Your task to perform on an android device: turn on javascript in the chrome app Image 0: 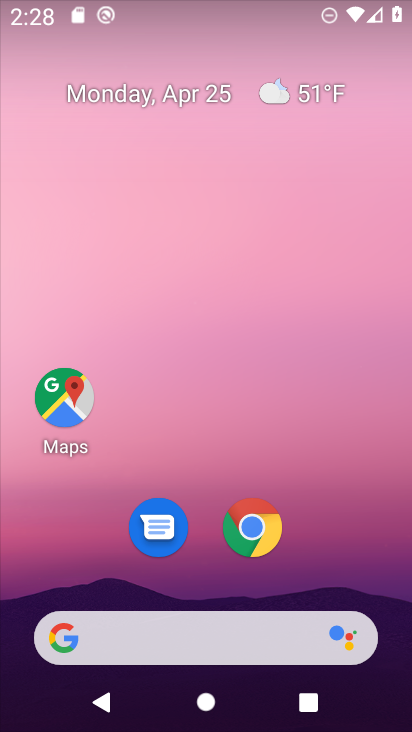
Step 0: drag from (353, 455) to (227, 0)
Your task to perform on an android device: turn on javascript in the chrome app Image 1: 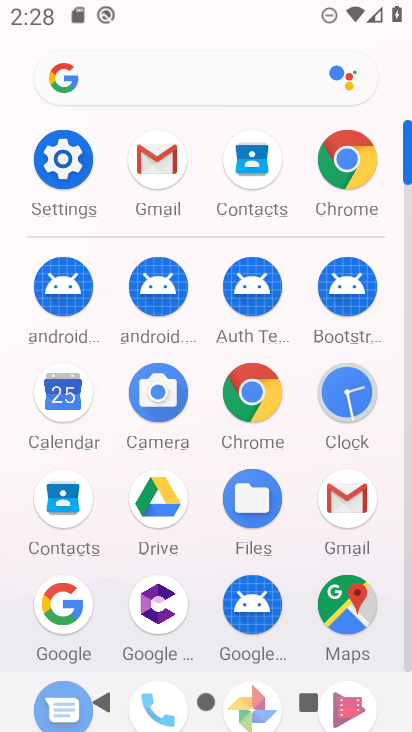
Step 1: drag from (12, 550) to (10, 271)
Your task to perform on an android device: turn on javascript in the chrome app Image 2: 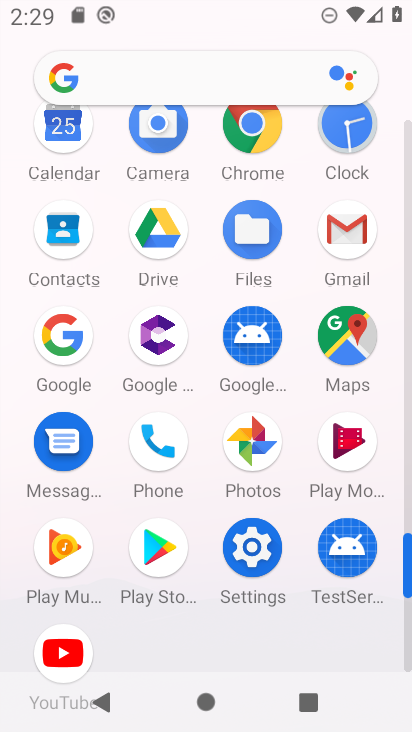
Step 2: drag from (9, 478) to (11, 244)
Your task to perform on an android device: turn on javascript in the chrome app Image 3: 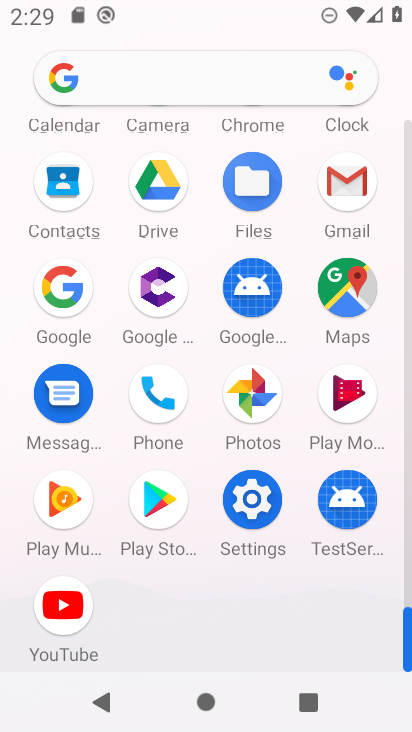
Step 3: drag from (21, 297) to (10, 435)
Your task to perform on an android device: turn on javascript in the chrome app Image 4: 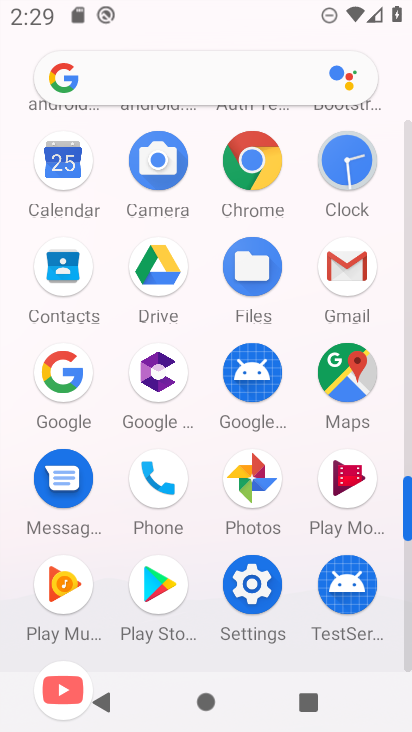
Step 4: drag from (16, 248) to (20, 495)
Your task to perform on an android device: turn on javascript in the chrome app Image 5: 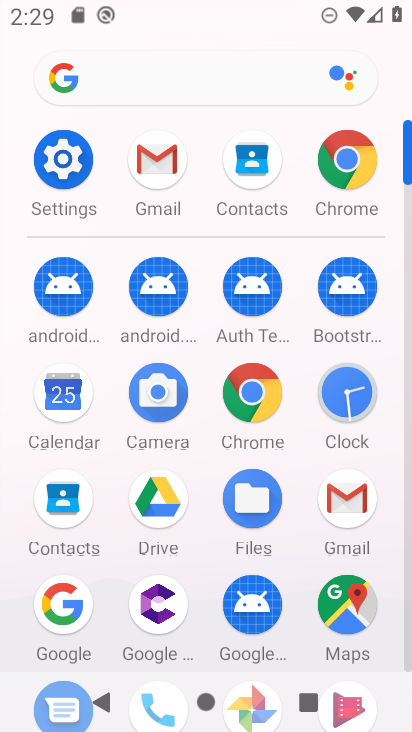
Step 5: click (250, 392)
Your task to perform on an android device: turn on javascript in the chrome app Image 6: 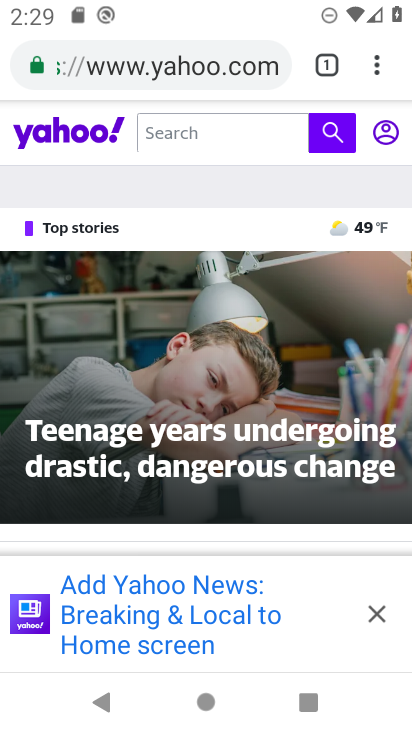
Step 6: drag from (373, 71) to (182, 562)
Your task to perform on an android device: turn on javascript in the chrome app Image 7: 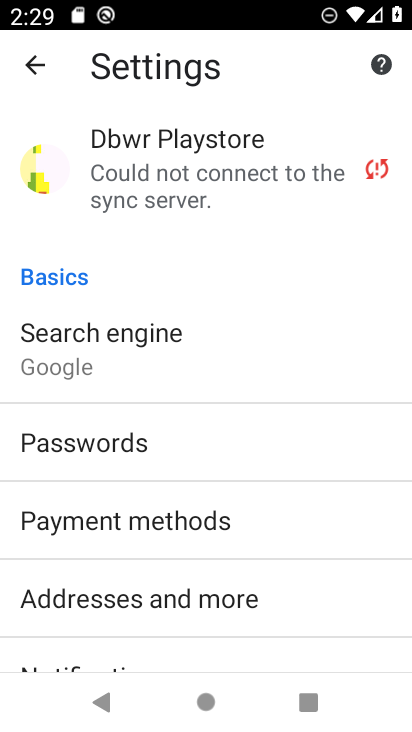
Step 7: drag from (327, 522) to (291, 114)
Your task to perform on an android device: turn on javascript in the chrome app Image 8: 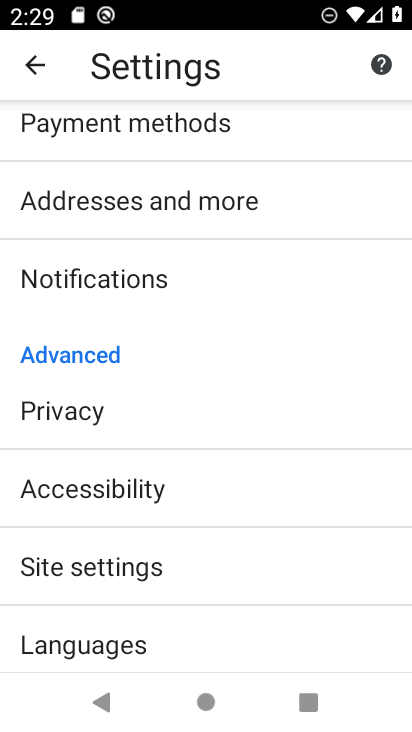
Step 8: drag from (277, 567) to (264, 215)
Your task to perform on an android device: turn on javascript in the chrome app Image 9: 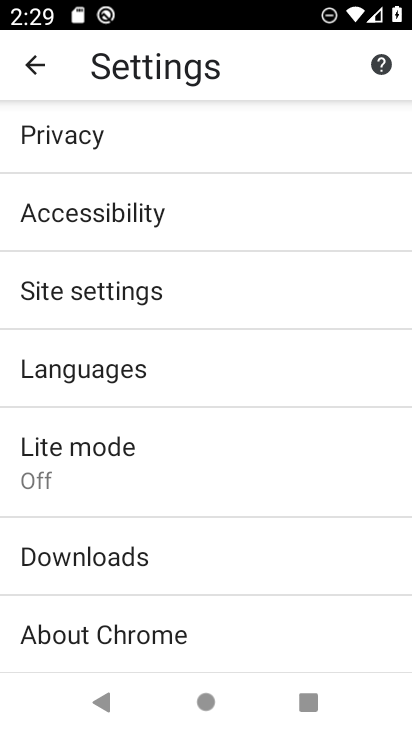
Step 9: click (137, 278)
Your task to perform on an android device: turn on javascript in the chrome app Image 10: 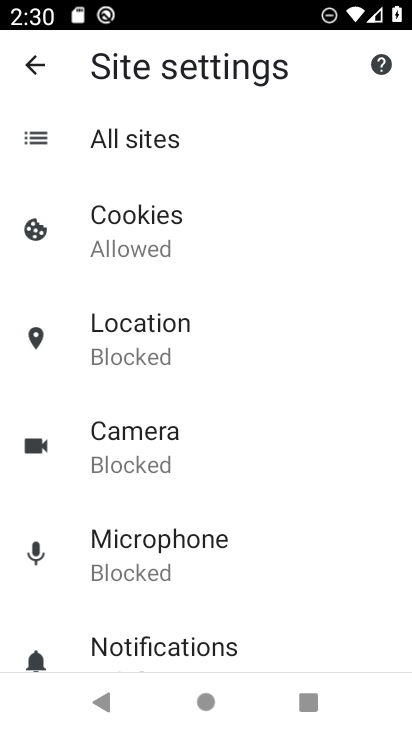
Step 10: drag from (237, 577) to (248, 137)
Your task to perform on an android device: turn on javascript in the chrome app Image 11: 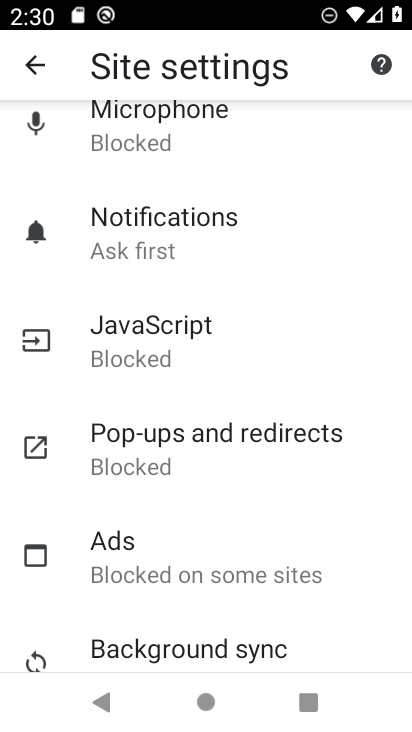
Step 11: click (209, 333)
Your task to perform on an android device: turn on javascript in the chrome app Image 12: 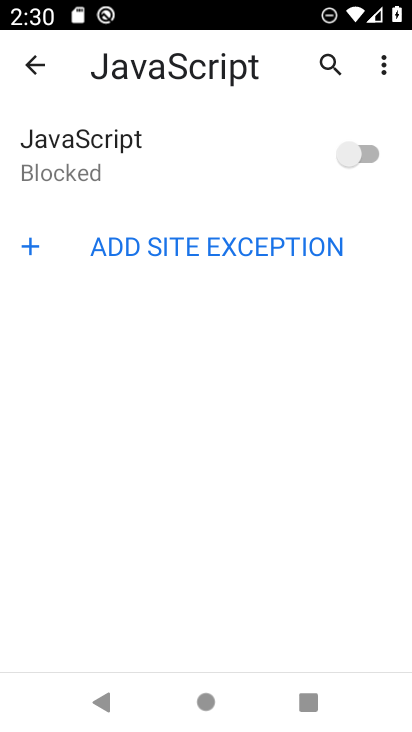
Step 12: click (371, 145)
Your task to perform on an android device: turn on javascript in the chrome app Image 13: 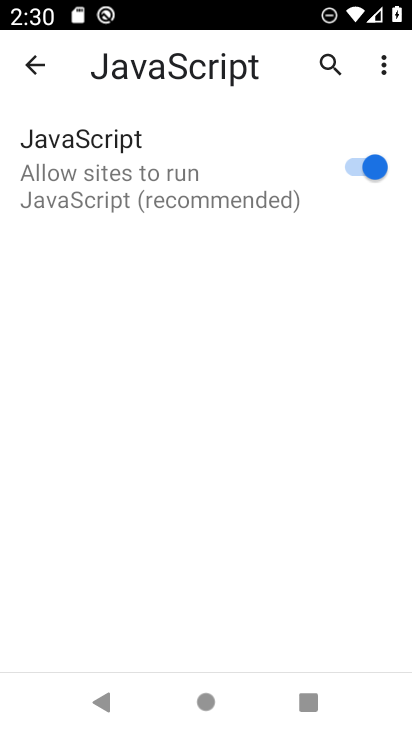
Step 13: task complete